Your task to perform on an android device: Open calendar and show me the second week of next month Image 0: 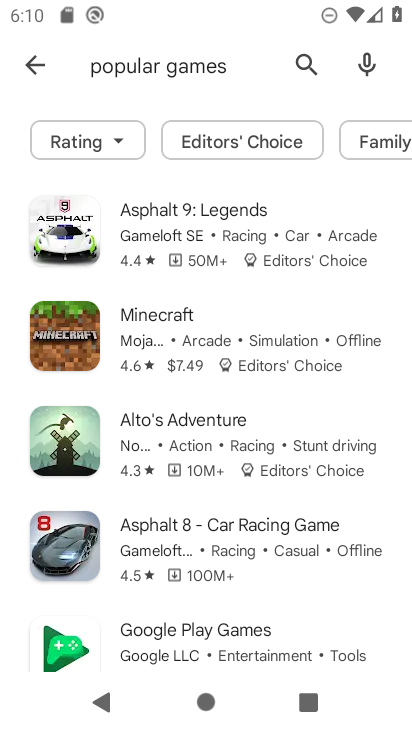
Step 0: press home button
Your task to perform on an android device: Open calendar and show me the second week of next month Image 1: 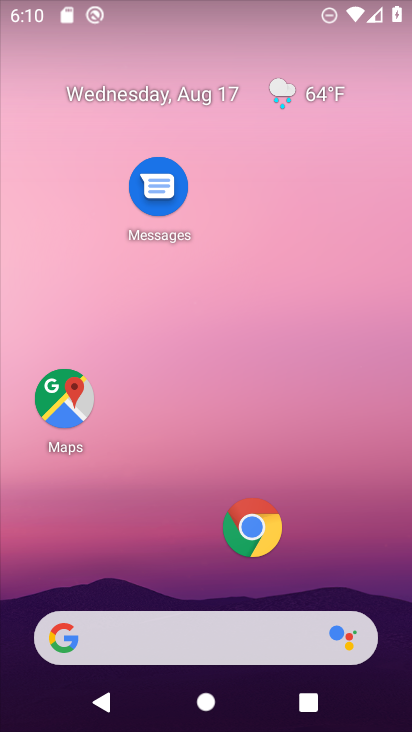
Step 1: drag from (215, 602) to (170, 343)
Your task to perform on an android device: Open calendar and show me the second week of next month Image 2: 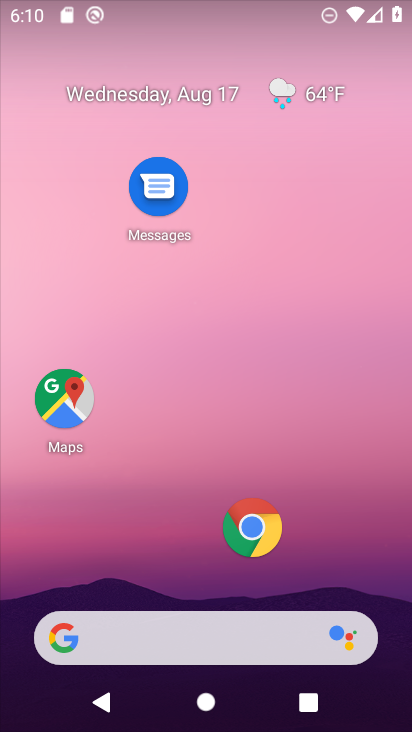
Step 2: drag from (101, 309) to (101, 268)
Your task to perform on an android device: Open calendar and show me the second week of next month Image 3: 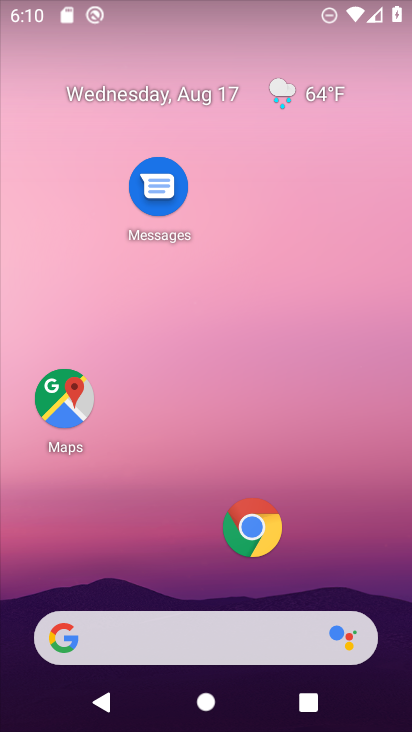
Step 3: drag from (193, 579) to (193, 255)
Your task to perform on an android device: Open calendar and show me the second week of next month Image 4: 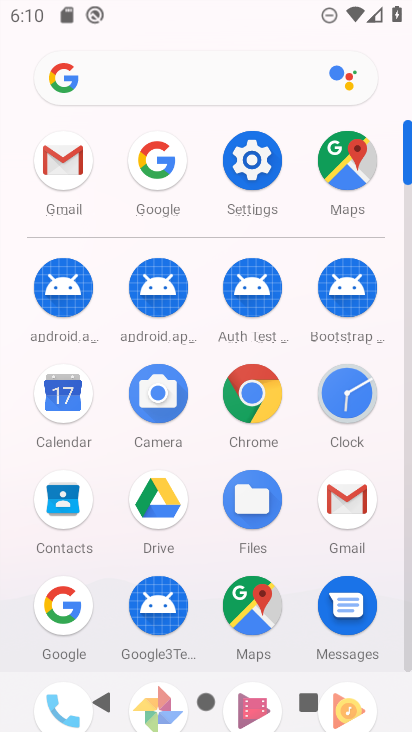
Step 4: click (46, 401)
Your task to perform on an android device: Open calendar and show me the second week of next month Image 5: 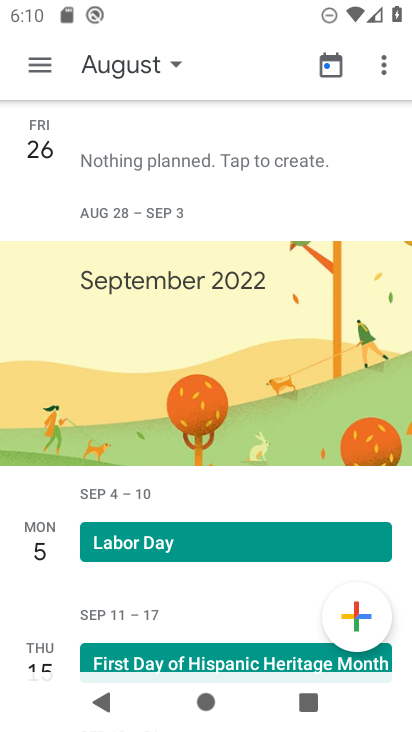
Step 5: click (101, 62)
Your task to perform on an android device: Open calendar and show me the second week of next month Image 6: 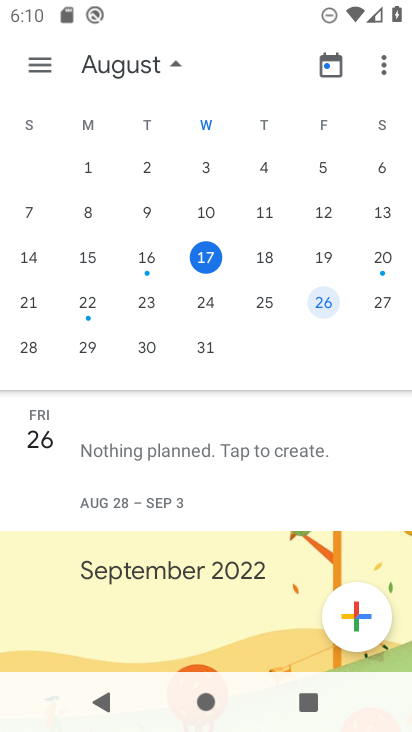
Step 6: drag from (398, 337) to (17, 349)
Your task to perform on an android device: Open calendar and show me the second week of next month Image 7: 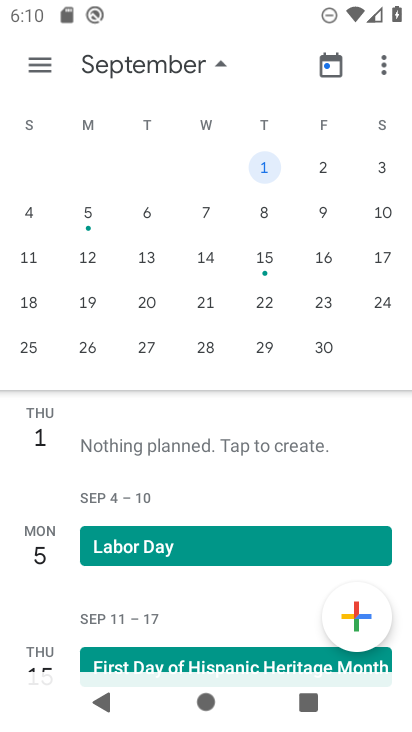
Step 7: click (17, 207)
Your task to perform on an android device: Open calendar and show me the second week of next month Image 8: 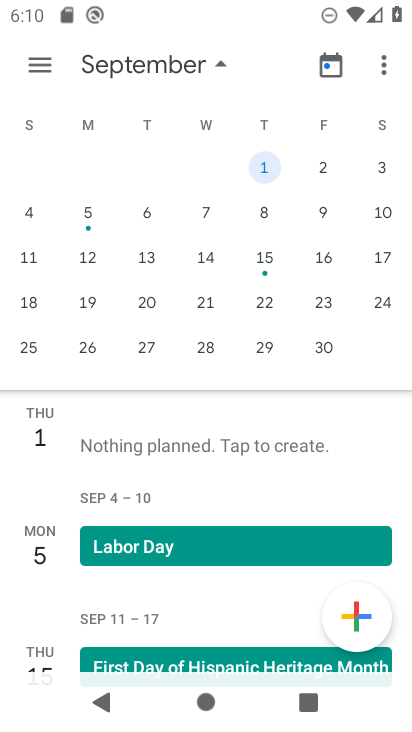
Step 8: click (27, 212)
Your task to perform on an android device: Open calendar and show me the second week of next month Image 9: 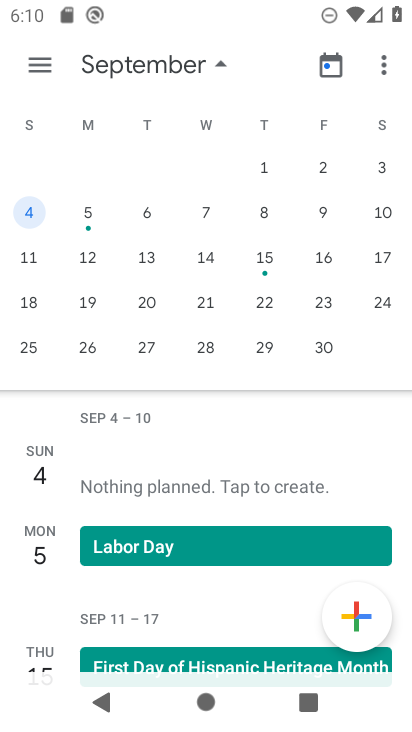
Step 9: task complete